Your task to perform on an android device: delete browsing data in the chrome app Image 0: 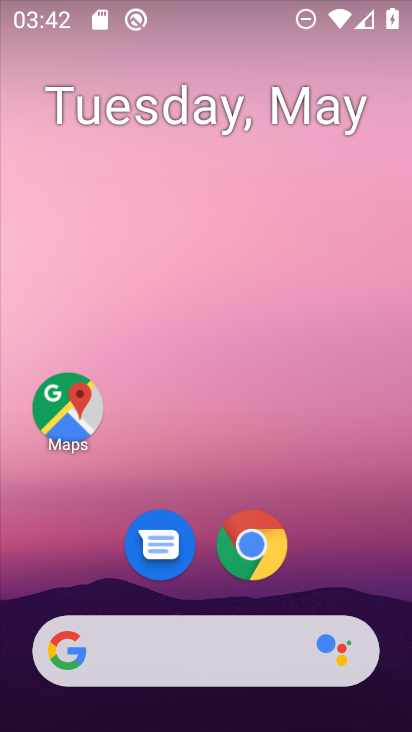
Step 0: click (254, 547)
Your task to perform on an android device: delete browsing data in the chrome app Image 1: 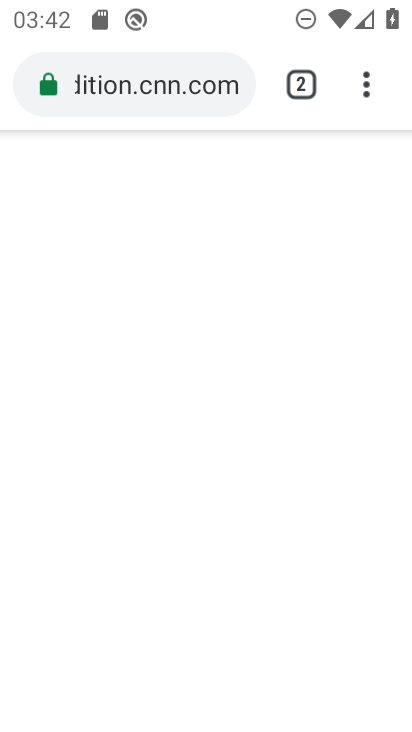
Step 1: click (364, 93)
Your task to perform on an android device: delete browsing data in the chrome app Image 2: 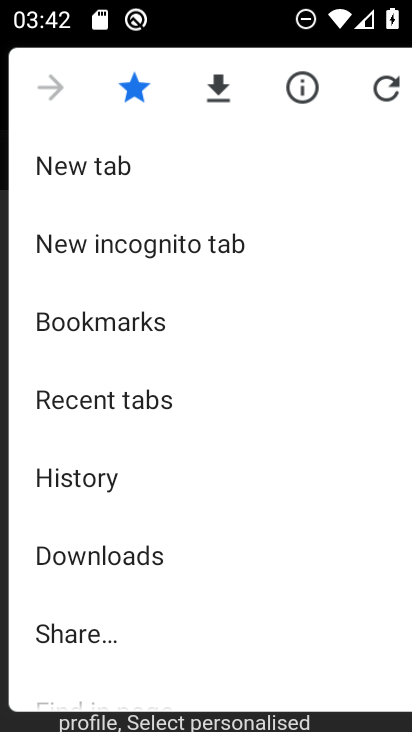
Step 2: click (95, 467)
Your task to perform on an android device: delete browsing data in the chrome app Image 3: 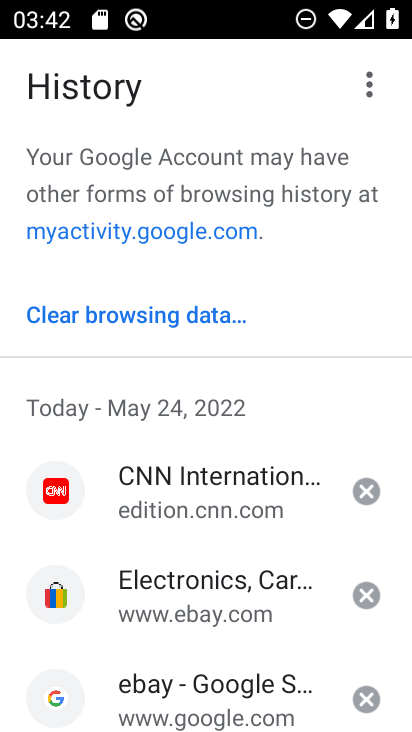
Step 3: click (116, 327)
Your task to perform on an android device: delete browsing data in the chrome app Image 4: 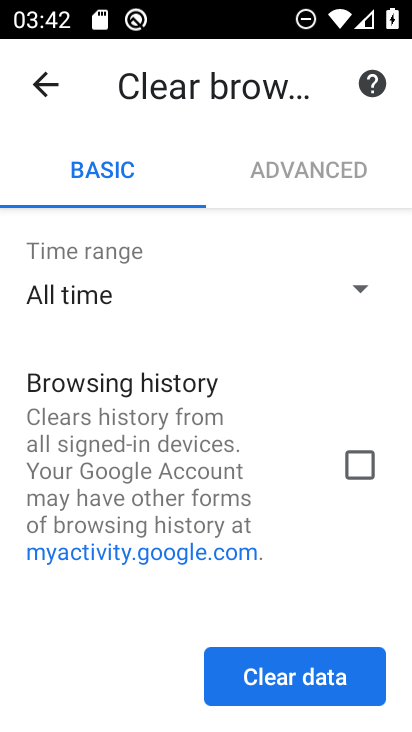
Step 4: click (348, 463)
Your task to perform on an android device: delete browsing data in the chrome app Image 5: 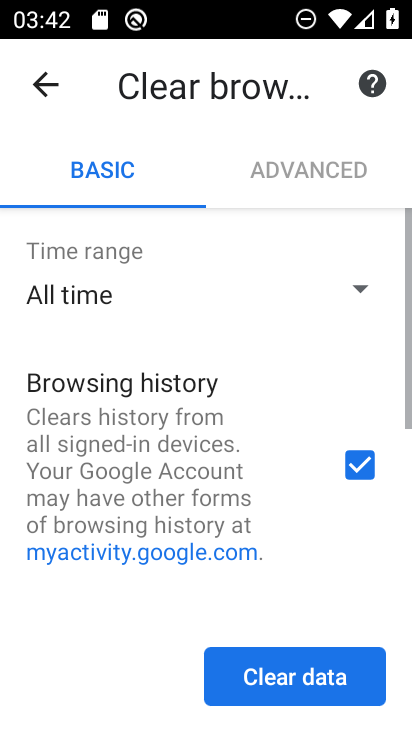
Step 5: drag from (285, 570) to (263, 147)
Your task to perform on an android device: delete browsing data in the chrome app Image 6: 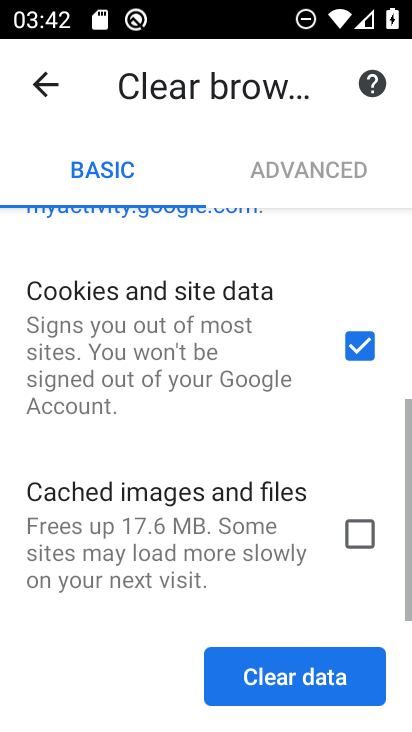
Step 6: click (347, 340)
Your task to perform on an android device: delete browsing data in the chrome app Image 7: 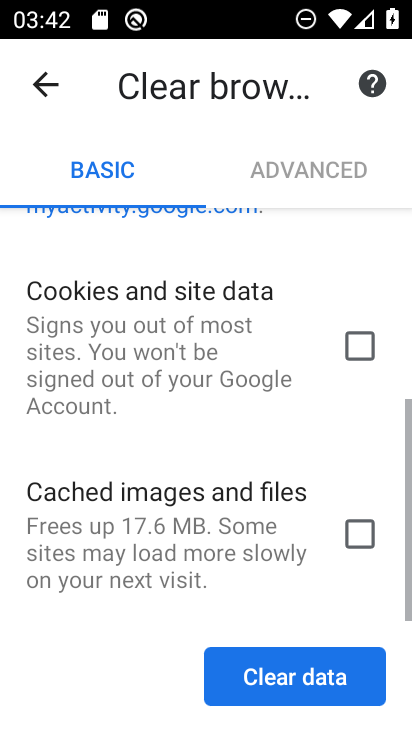
Step 7: click (298, 674)
Your task to perform on an android device: delete browsing data in the chrome app Image 8: 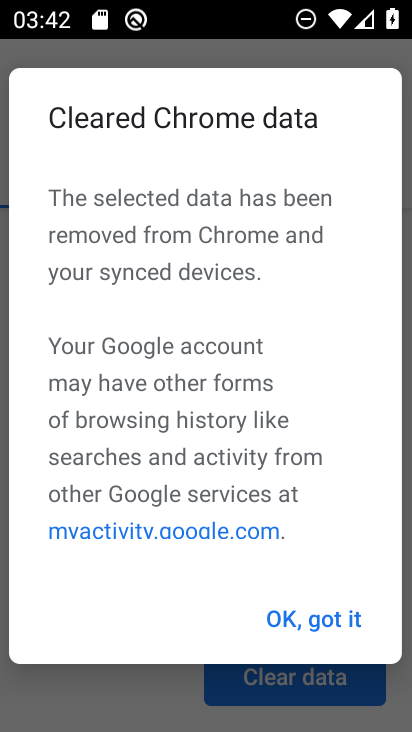
Step 8: click (306, 616)
Your task to perform on an android device: delete browsing data in the chrome app Image 9: 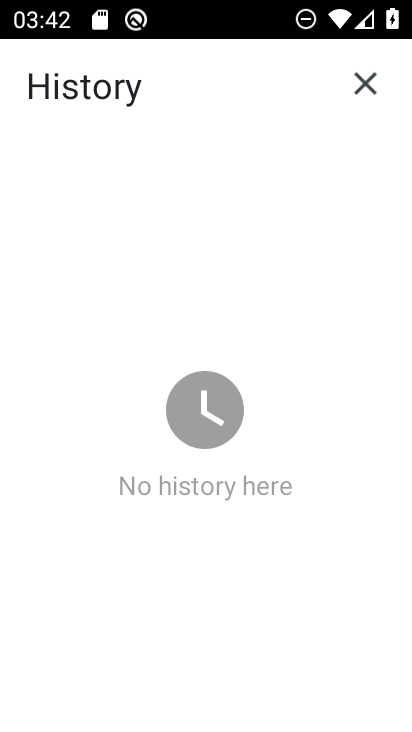
Step 9: task complete